Your task to perform on an android device: toggle javascript in the chrome app Image 0: 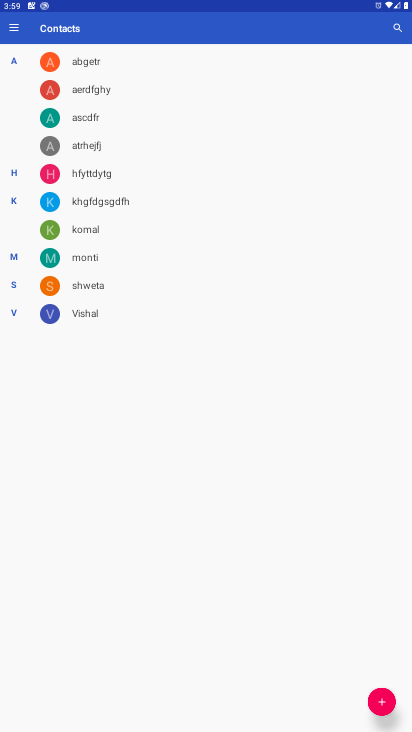
Step 0: press home button
Your task to perform on an android device: toggle javascript in the chrome app Image 1: 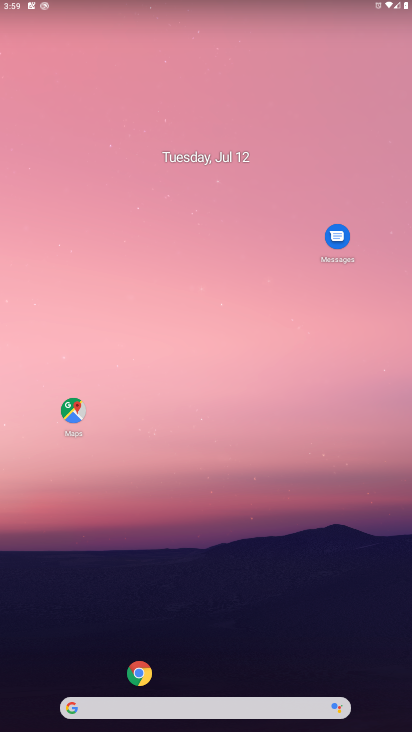
Step 1: click (134, 673)
Your task to perform on an android device: toggle javascript in the chrome app Image 2: 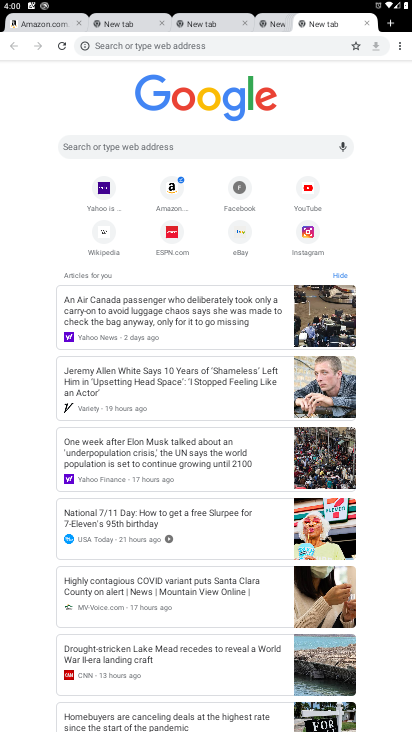
Step 2: click (397, 46)
Your task to perform on an android device: toggle javascript in the chrome app Image 3: 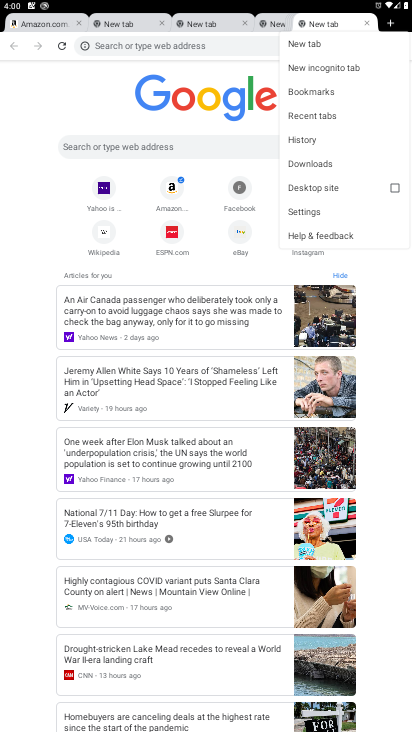
Step 3: click (304, 210)
Your task to perform on an android device: toggle javascript in the chrome app Image 4: 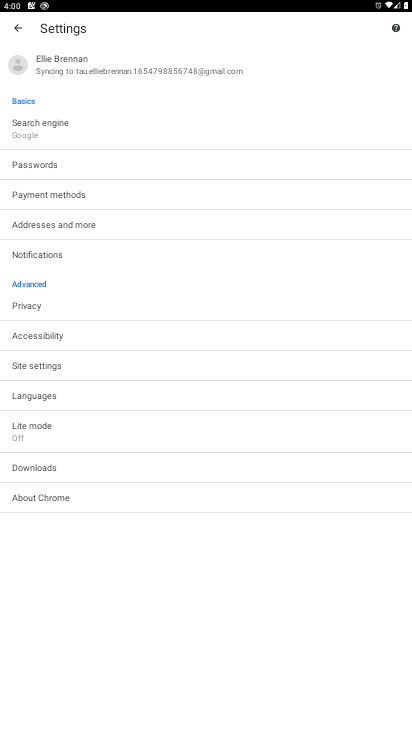
Step 4: click (47, 365)
Your task to perform on an android device: toggle javascript in the chrome app Image 5: 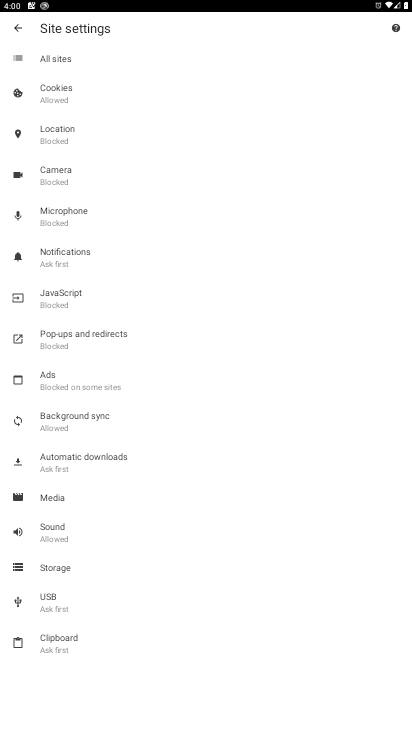
Step 5: click (58, 297)
Your task to perform on an android device: toggle javascript in the chrome app Image 6: 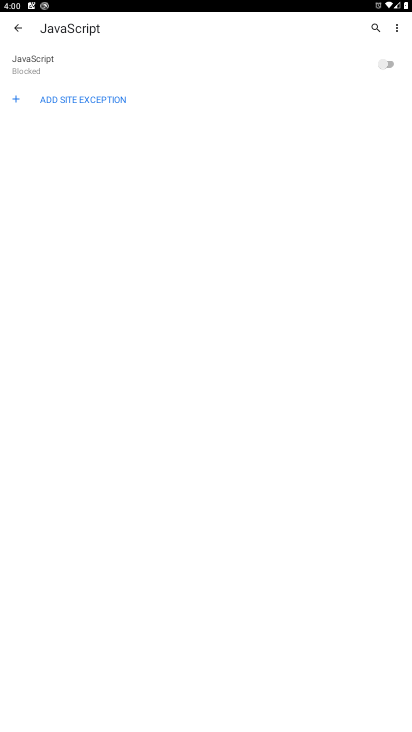
Step 6: click (381, 71)
Your task to perform on an android device: toggle javascript in the chrome app Image 7: 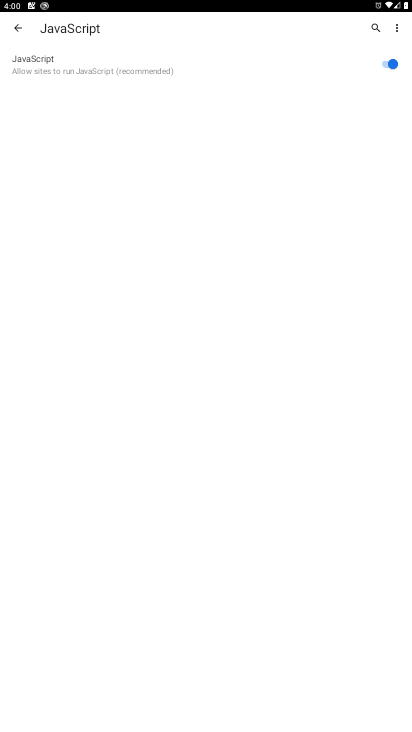
Step 7: task complete